Your task to perform on an android device: Go to battery settings Image 0: 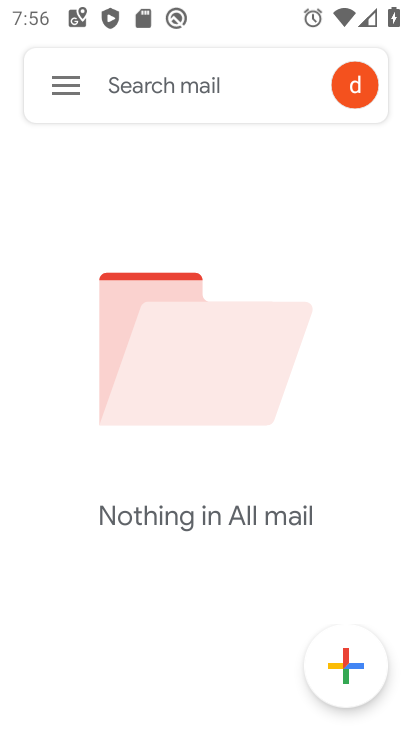
Step 0: press home button
Your task to perform on an android device: Go to battery settings Image 1: 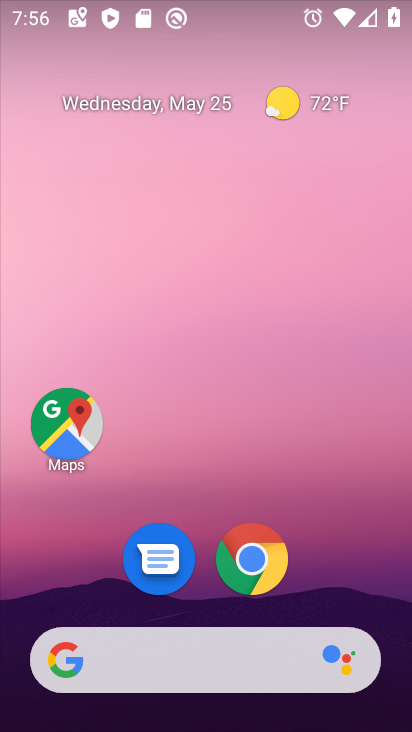
Step 1: drag from (185, 680) to (208, 8)
Your task to perform on an android device: Go to battery settings Image 2: 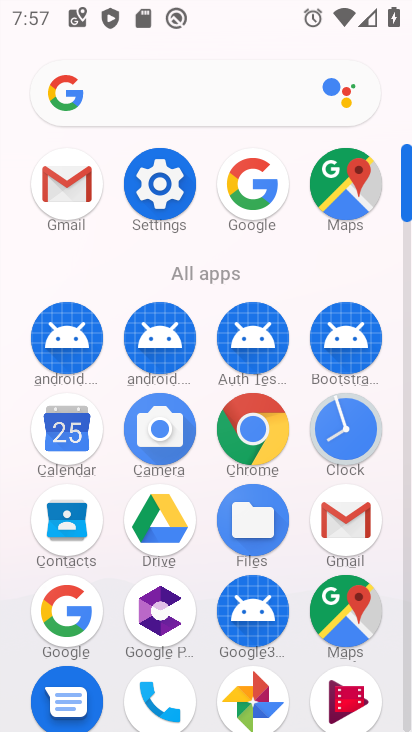
Step 2: click (170, 211)
Your task to perform on an android device: Go to battery settings Image 3: 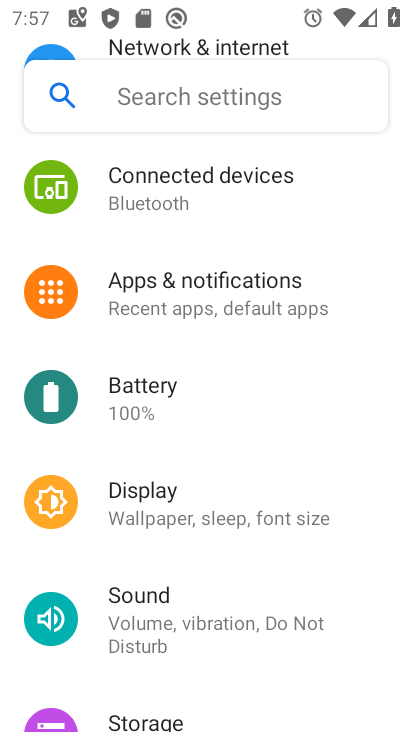
Step 3: click (184, 395)
Your task to perform on an android device: Go to battery settings Image 4: 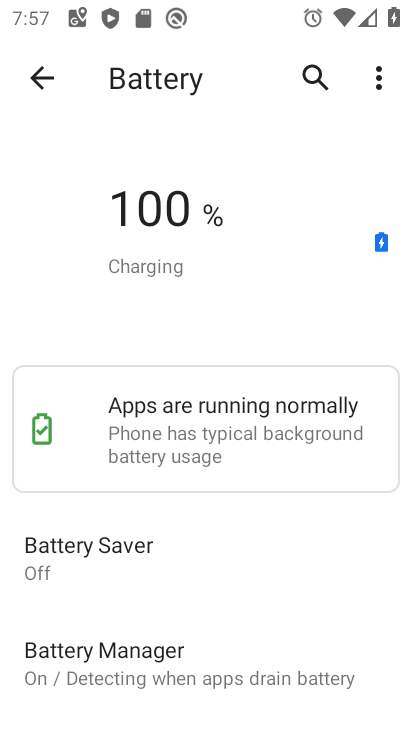
Step 4: task complete